Your task to perform on an android device: Search for vegetarian restaurants on Maps Image 0: 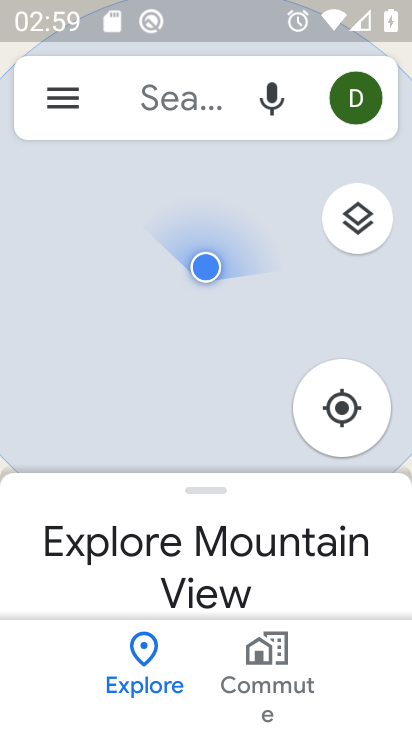
Step 0: press home button
Your task to perform on an android device: Search for vegetarian restaurants on Maps Image 1: 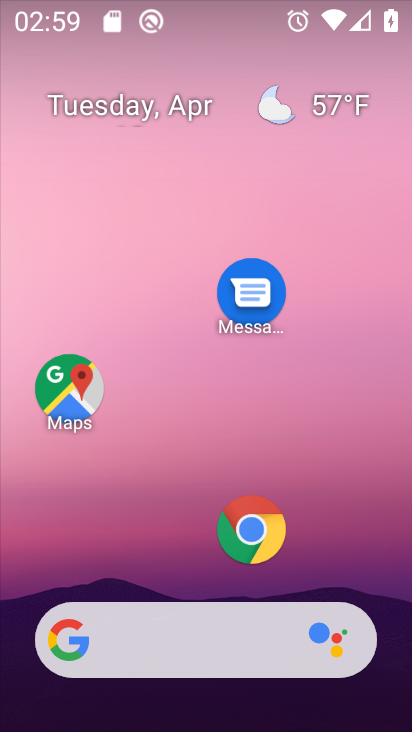
Step 1: click (69, 387)
Your task to perform on an android device: Search for vegetarian restaurants on Maps Image 2: 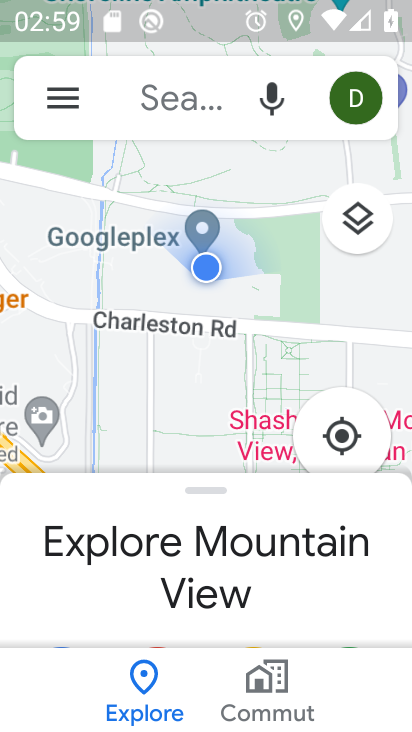
Step 2: click (193, 95)
Your task to perform on an android device: Search for vegetarian restaurants on Maps Image 3: 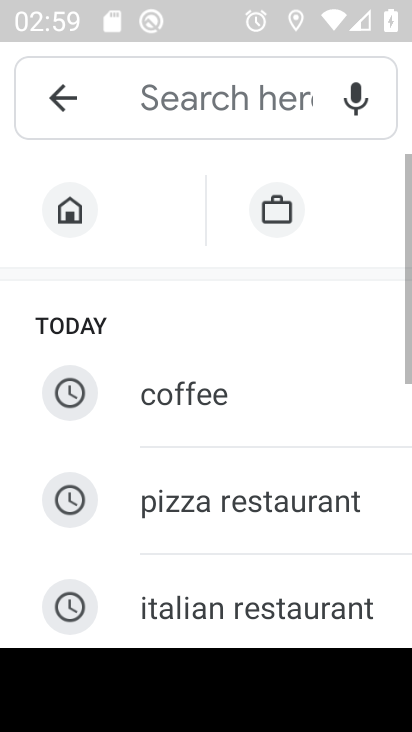
Step 3: drag from (250, 575) to (276, 230)
Your task to perform on an android device: Search for vegetarian restaurants on Maps Image 4: 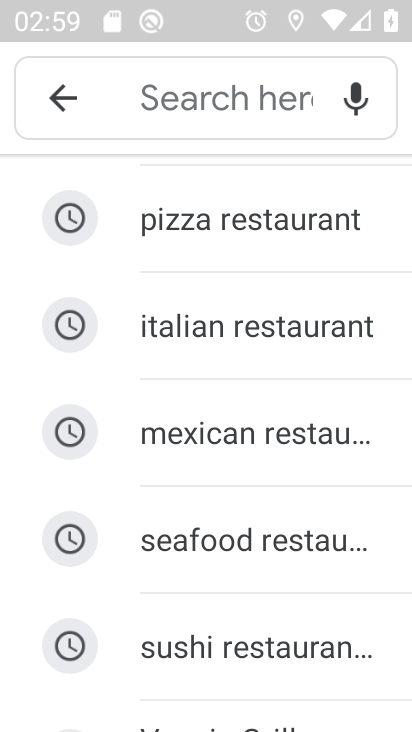
Step 4: drag from (219, 648) to (237, 453)
Your task to perform on an android device: Search for vegetarian restaurants on Maps Image 5: 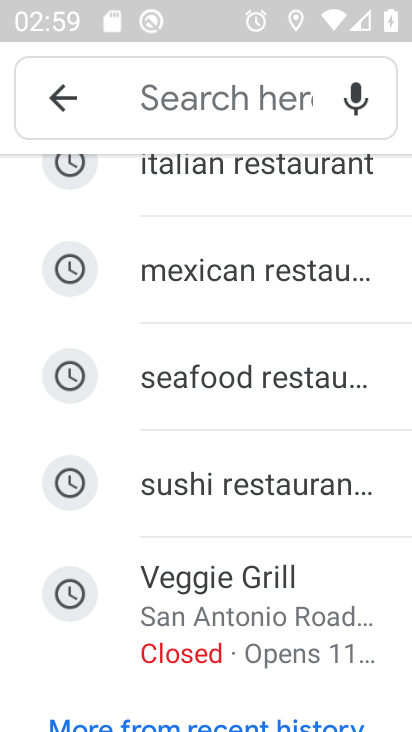
Step 5: click (235, 79)
Your task to perform on an android device: Search for vegetarian restaurants on Maps Image 6: 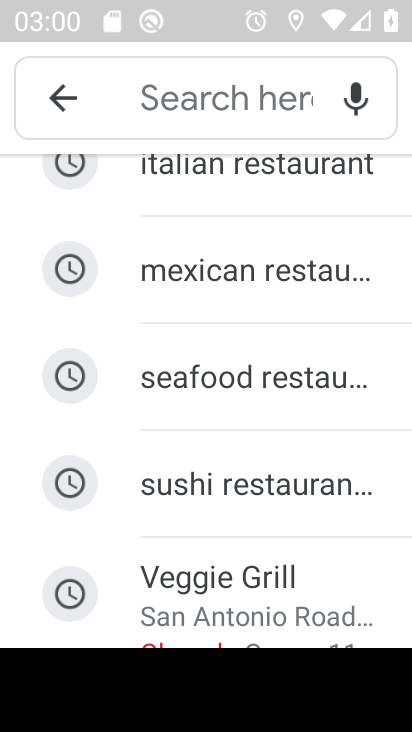
Step 6: type "vegetarian restaurent"
Your task to perform on an android device: Search for vegetarian restaurants on Maps Image 7: 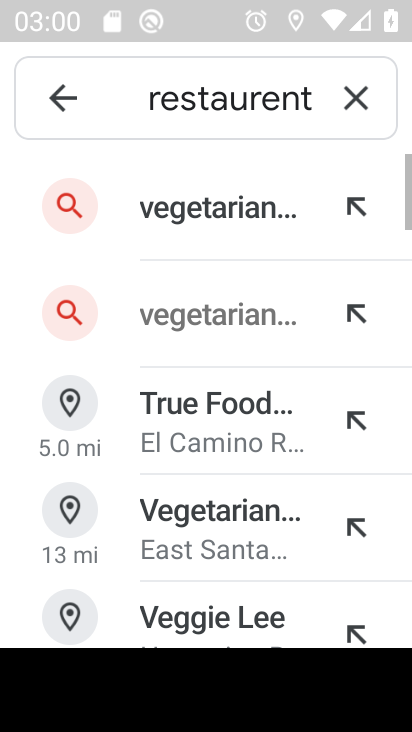
Step 7: click (235, 183)
Your task to perform on an android device: Search for vegetarian restaurants on Maps Image 8: 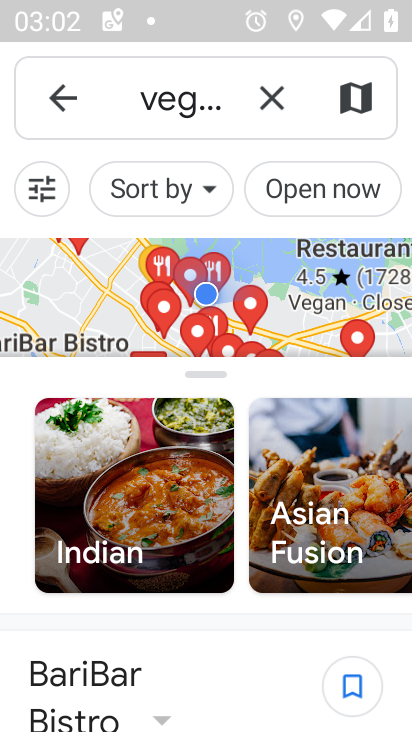
Step 8: task complete